Your task to perform on an android device: Open sound settings Image 0: 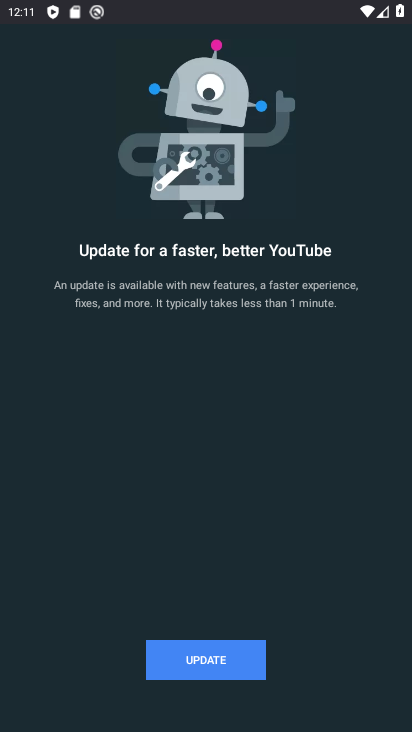
Step 0: press back button
Your task to perform on an android device: Open sound settings Image 1: 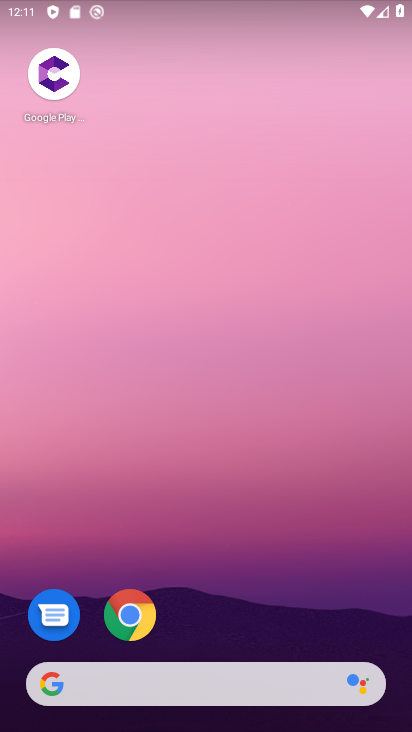
Step 1: drag from (282, 587) to (221, 26)
Your task to perform on an android device: Open sound settings Image 2: 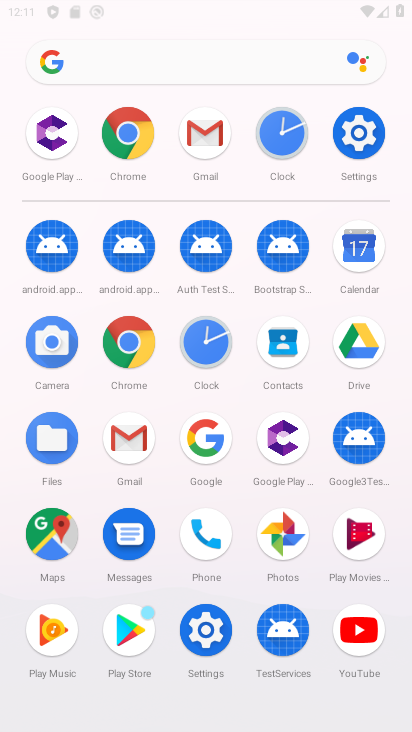
Step 2: click (372, 162)
Your task to perform on an android device: Open sound settings Image 3: 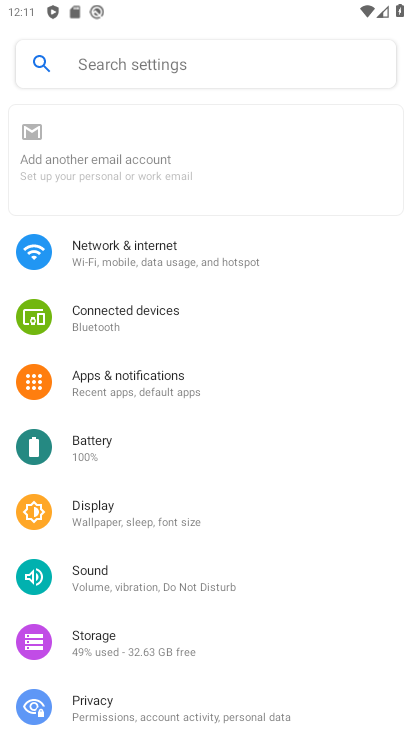
Step 3: click (243, 462)
Your task to perform on an android device: Open sound settings Image 4: 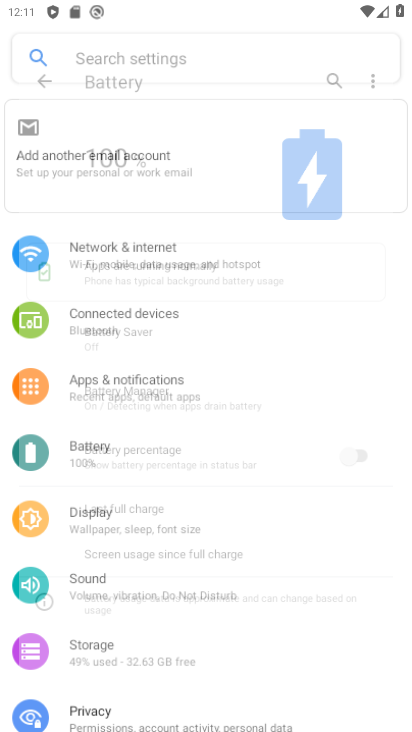
Step 4: task complete